Your task to perform on an android device: Open the stopwatch Image 0: 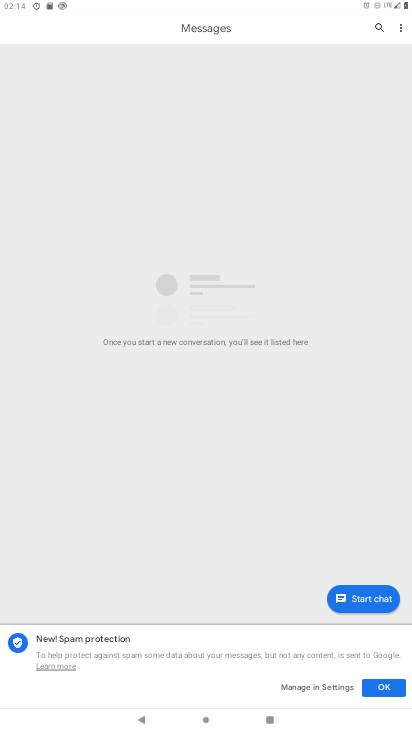
Step 0: press home button
Your task to perform on an android device: Open the stopwatch Image 1: 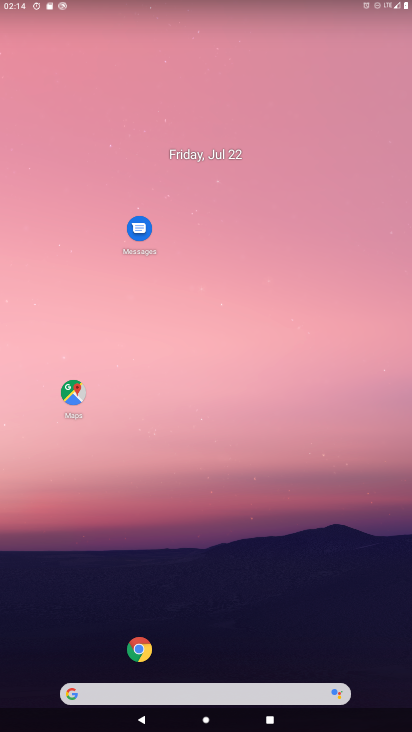
Step 1: drag from (32, 683) to (303, 84)
Your task to perform on an android device: Open the stopwatch Image 2: 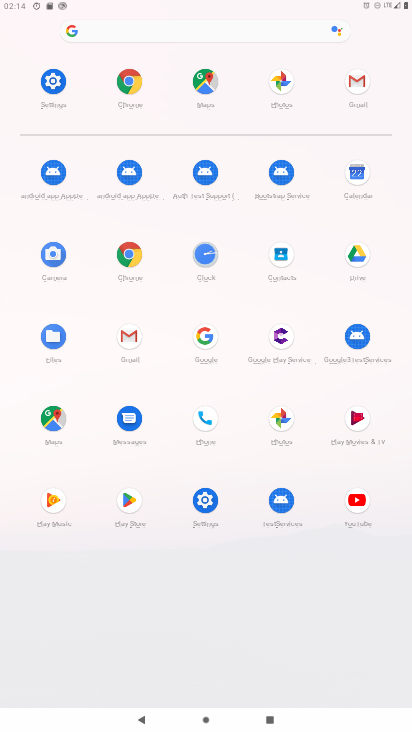
Step 2: click (209, 270)
Your task to perform on an android device: Open the stopwatch Image 3: 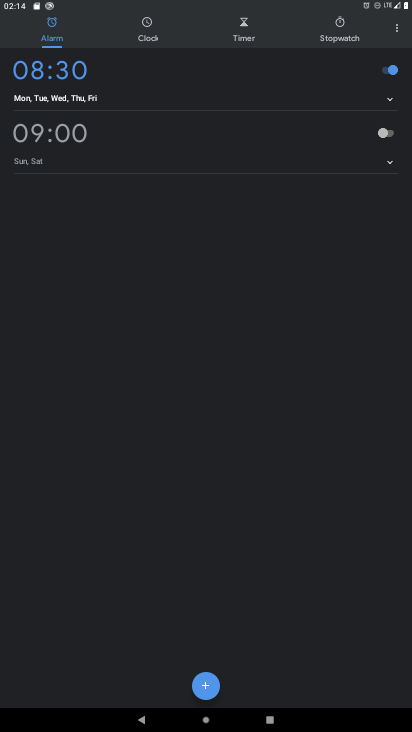
Step 3: click (340, 24)
Your task to perform on an android device: Open the stopwatch Image 4: 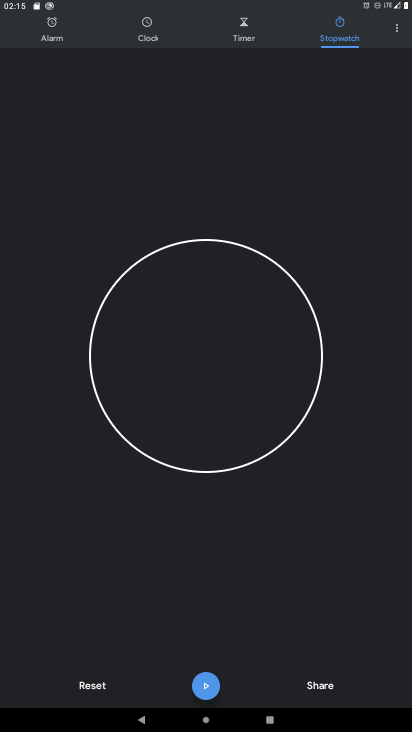
Step 4: click (194, 364)
Your task to perform on an android device: Open the stopwatch Image 5: 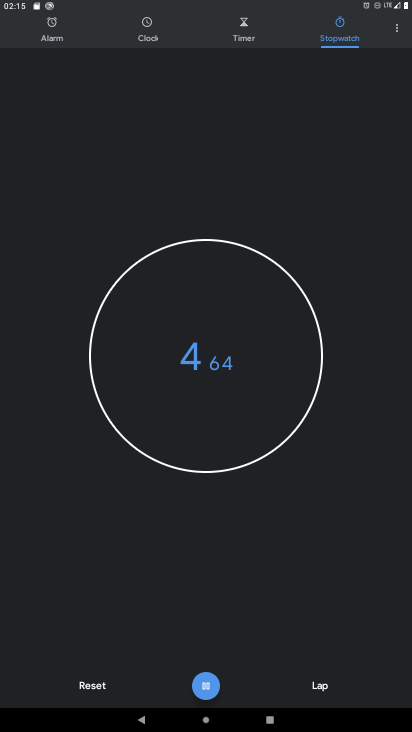
Step 5: task complete